Your task to perform on an android device: Open Google Chrome Image 0: 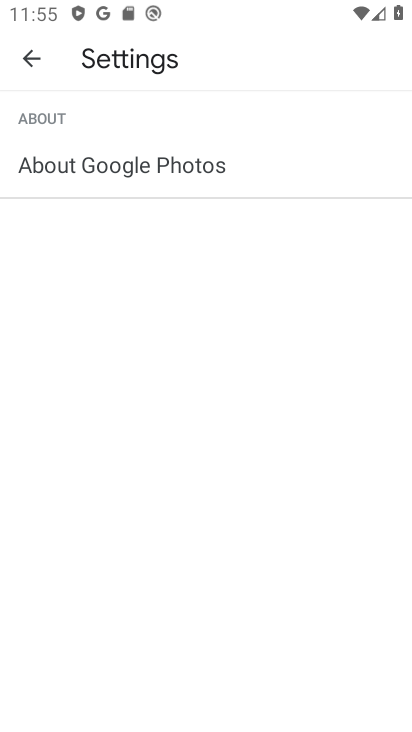
Step 0: press home button
Your task to perform on an android device: Open Google Chrome Image 1: 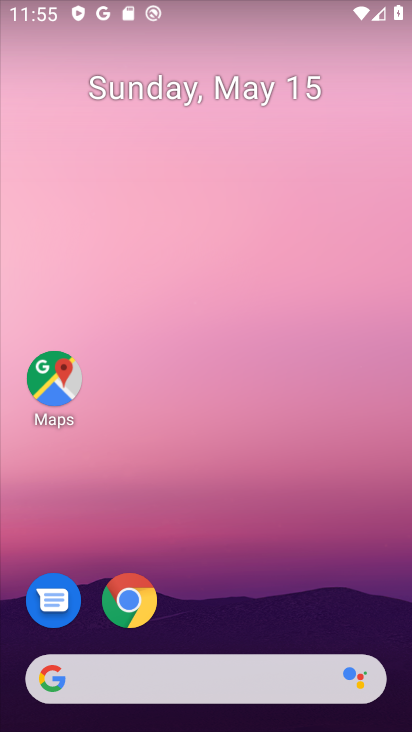
Step 1: click (132, 604)
Your task to perform on an android device: Open Google Chrome Image 2: 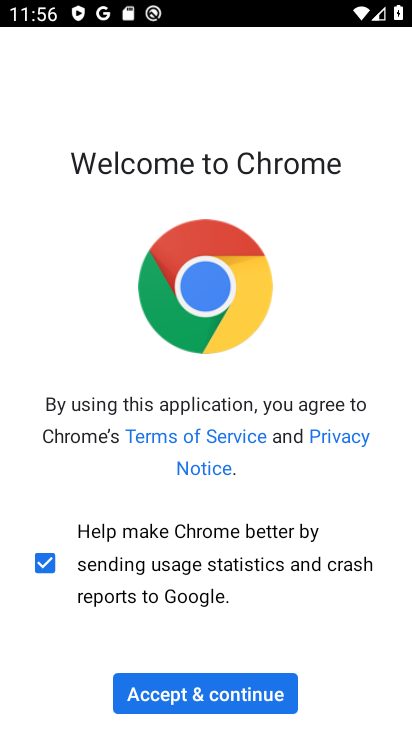
Step 2: click (225, 691)
Your task to perform on an android device: Open Google Chrome Image 3: 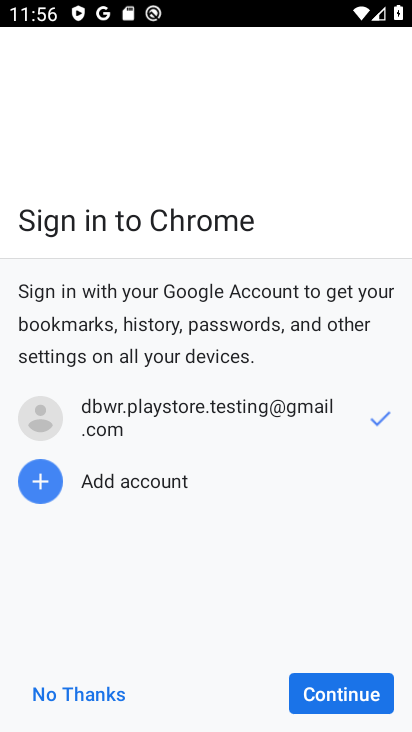
Step 3: click (316, 695)
Your task to perform on an android device: Open Google Chrome Image 4: 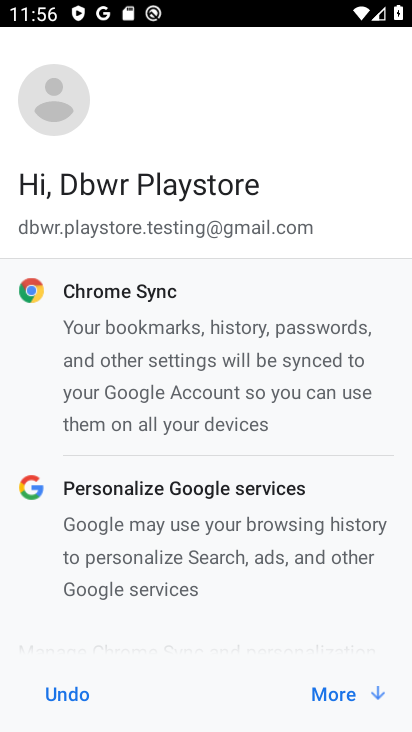
Step 4: task complete